Your task to perform on an android device: all mails in gmail Image 0: 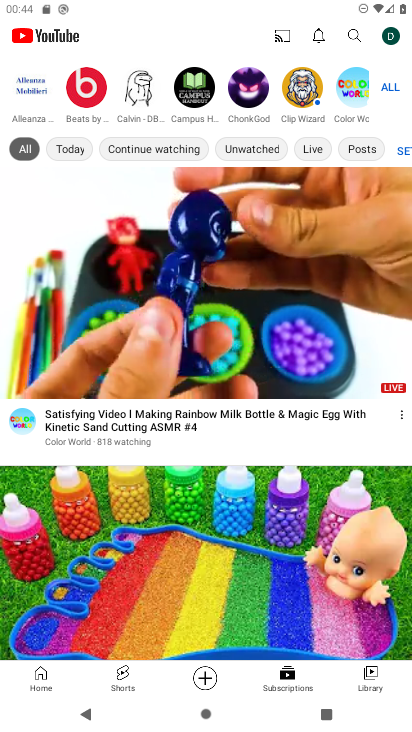
Step 0: press home button
Your task to perform on an android device: all mails in gmail Image 1: 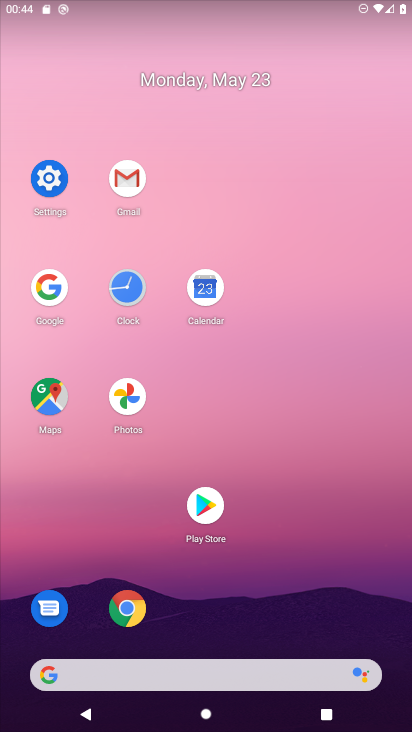
Step 1: click (111, 187)
Your task to perform on an android device: all mails in gmail Image 2: 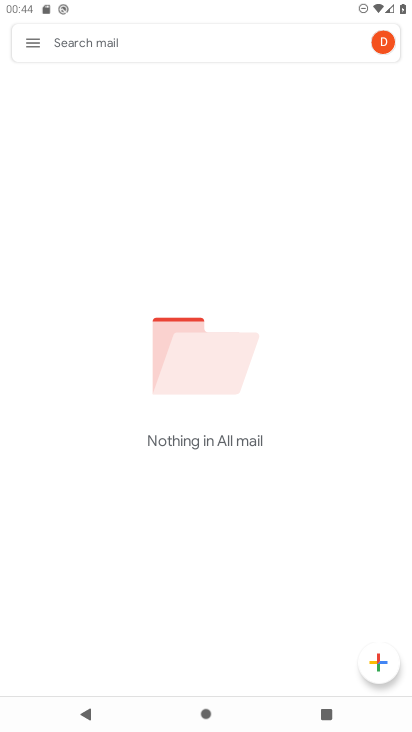
Step 2: click (36, 51)
Your task to perform on an android device: all mails in gmail Image 3: 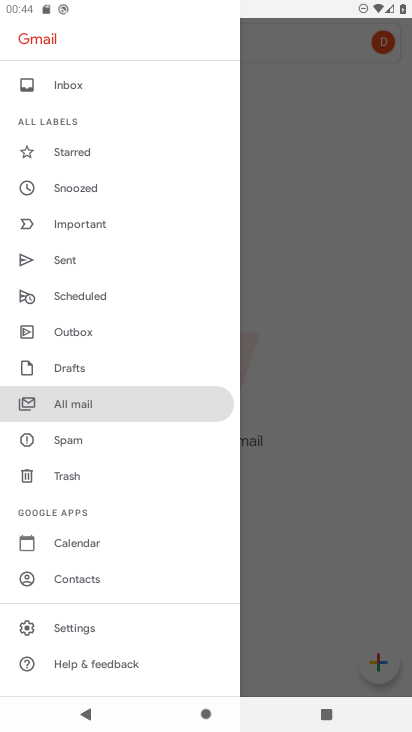
Step 3: click (103, 407)
Your task to perform on an android device: all mails in gmail Image 4: 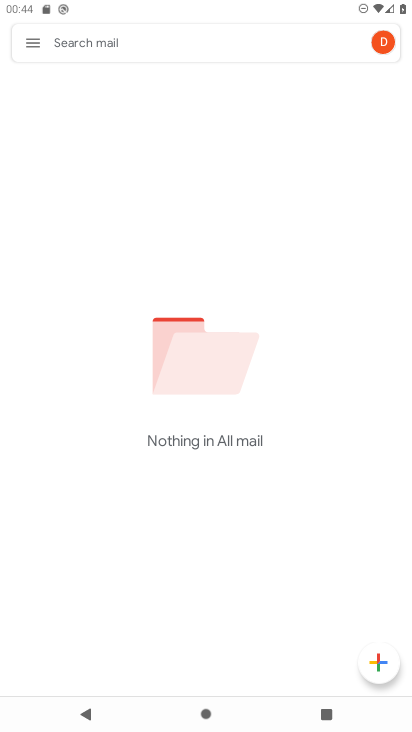
Step 4: task complete